Your task to perform on an android device: add a contact Image 0: 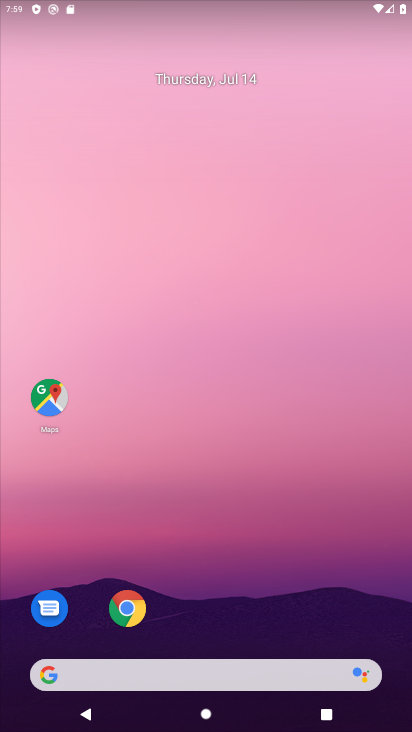
Step 0: drag from (182, 557) to (48, 57)
Your task to perform on an android device: add a contact Image 1: 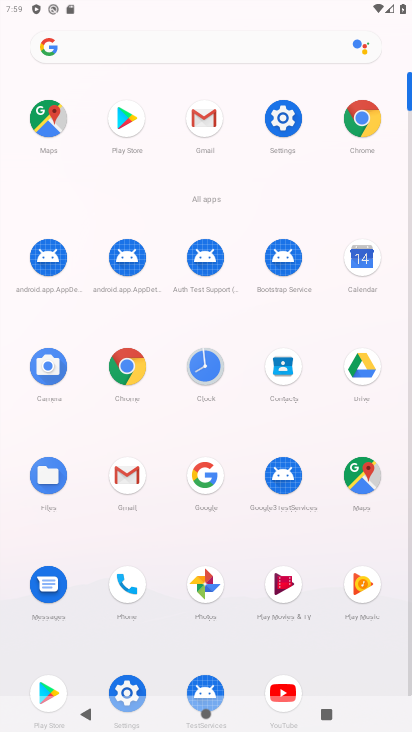
Step 1: click (276, 371)
Your task to perform on an android device: add a contact Image 2: 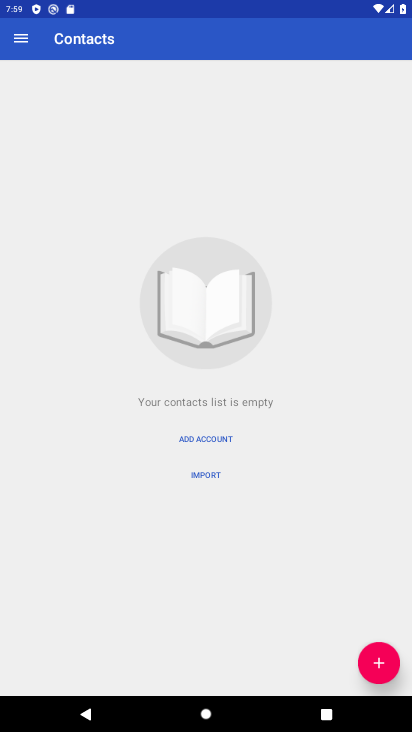
Step 2: click (383, 659)
Your task to perform on an android device: add a contact Image 3: 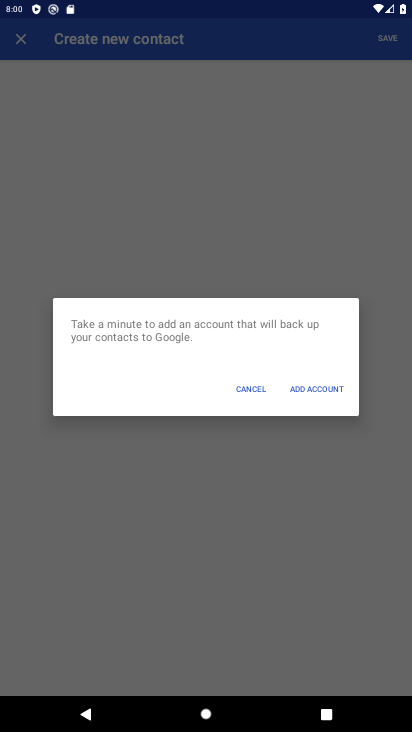
Step 3: click (297, 386)
Your task to perform on an android device: add a contact Image 4: 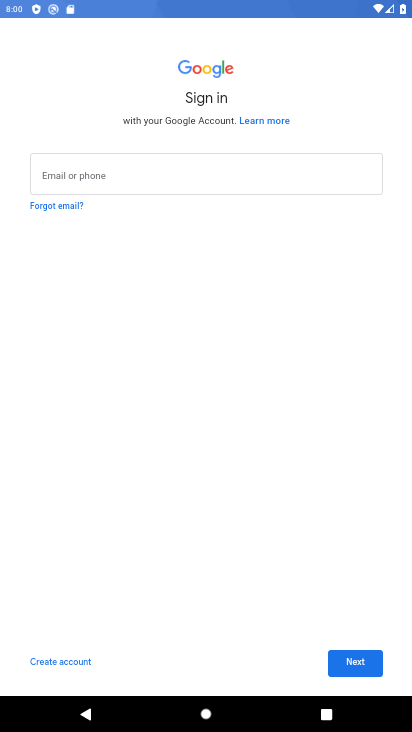
Step 4: click (351, 666)
Your task to perform on an android device: add a contact Image 5: 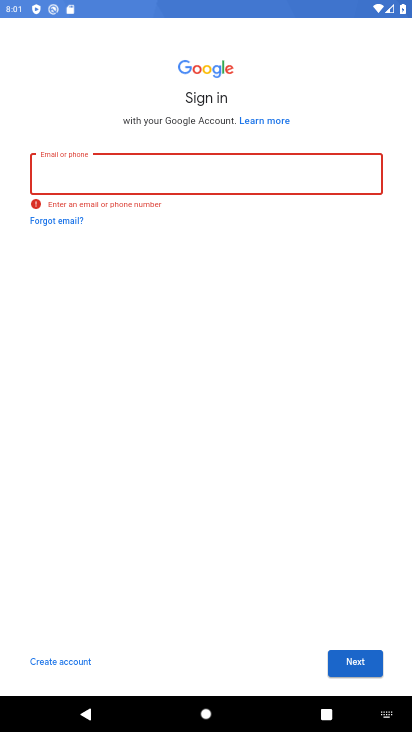
Step 5: task complete